Your task to perform on an android device: Open eBay Image 0: 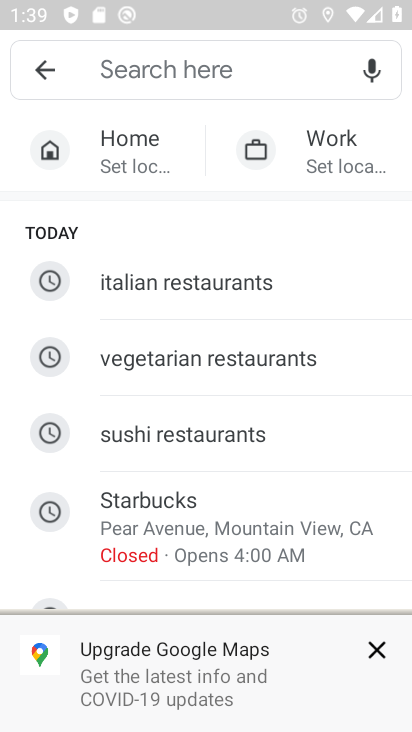
Step 0: press home button
Your task to perform on an android device: Open eBay Image 1: 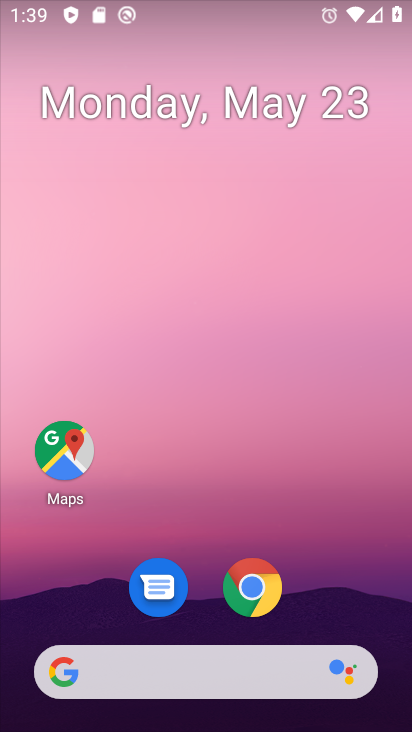
Step 1: click (274, 578)
Your task to perform on an android device: Open eBay Image 2: 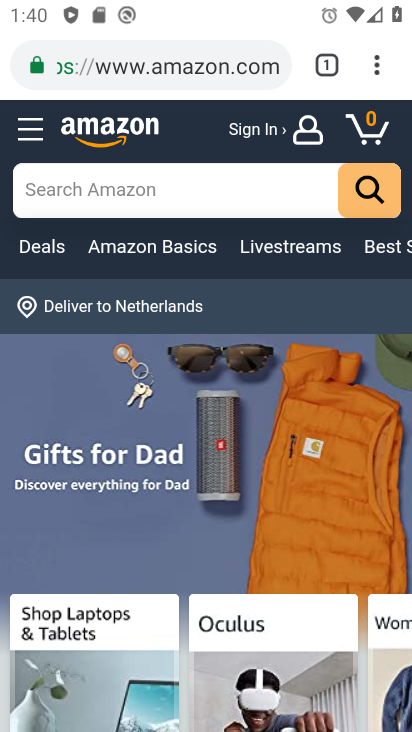
Step 2: click (196, 54)
Your task to perform on an android device: Open eBay Image 3: 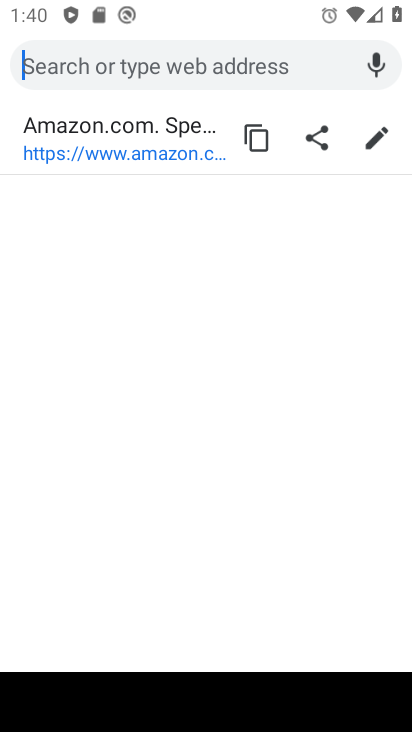
Step 3: type "ebaay.com"
Your task to perform on an android device: Open eBay Image 4: 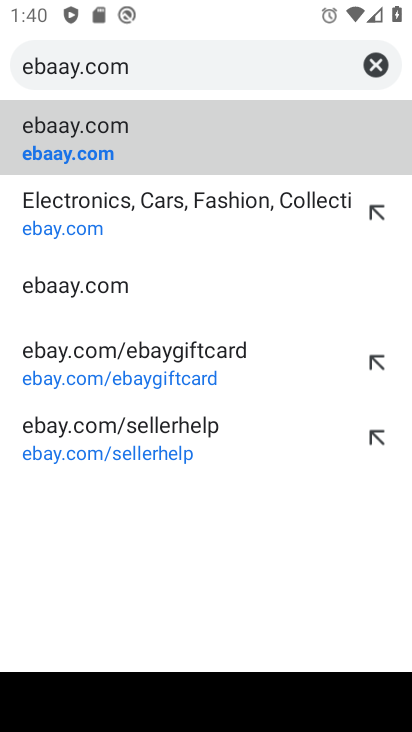
Step 4: task complete